Your task to perform on an android device: refresh tabs in the chrome app Image 0: 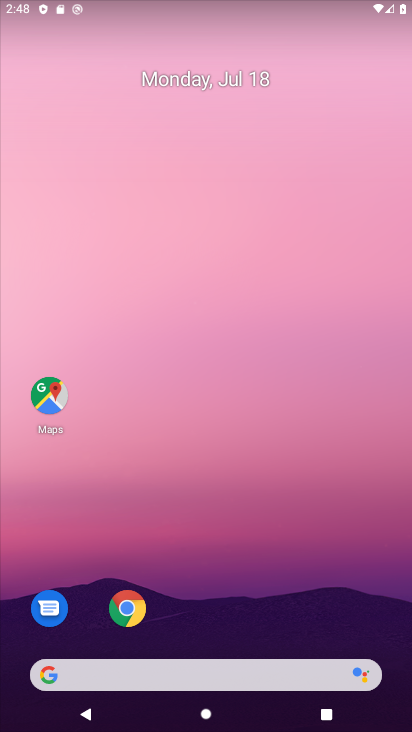
Step 0: click (121, 605)
Your task to perform on an android device: refresh tabs in the chrome app Image 1: 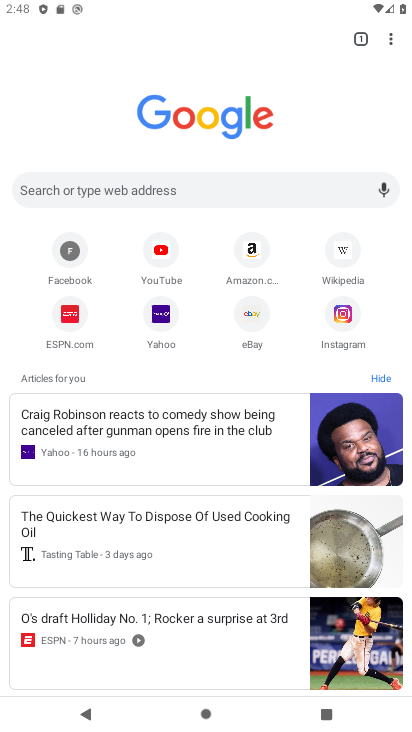
Step 1: click (395, 42)
Your task to perform on an android device: refresh tabs in the chrome app Image 2: 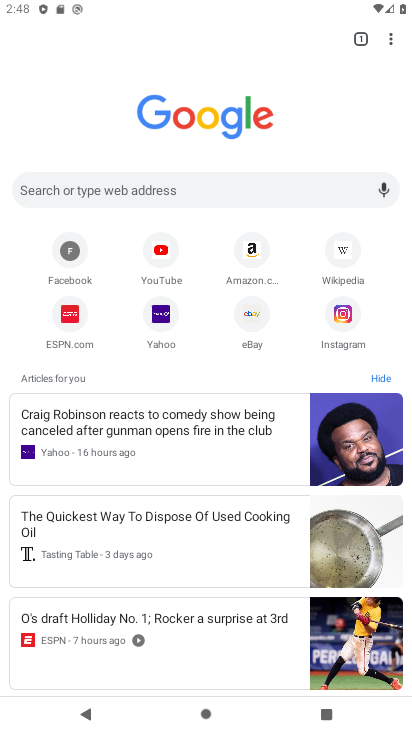
Step 2: task complete